Your task to perform on an android device: Open Google Maps Image 0: 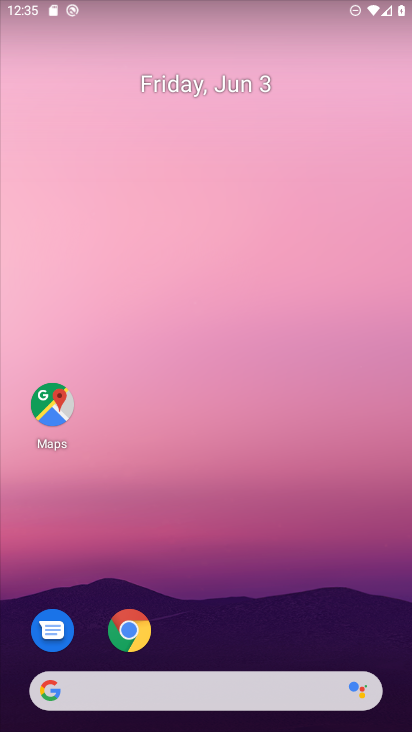
Step 0: click (51, 416)
Your task to perform on an android device: Open Google Maps Image 1: 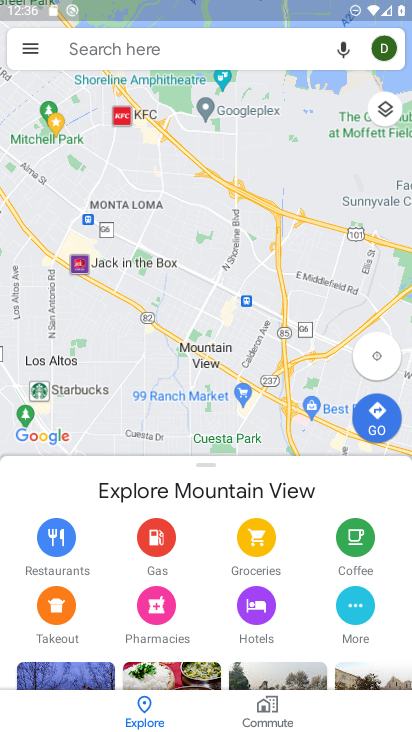
Step 1: task complete